Your task to perform on an android device: Set the phone to "Do not disturb". Image 0: 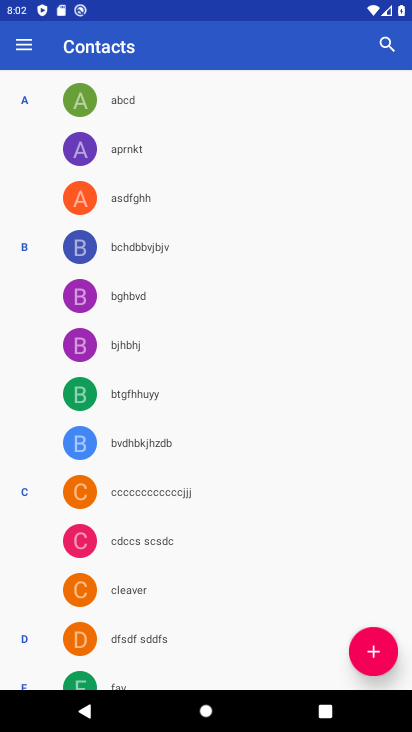
Step 0: press home button
Your task to perform on an android device: Set the phone to "Do not disturb". Image 1: 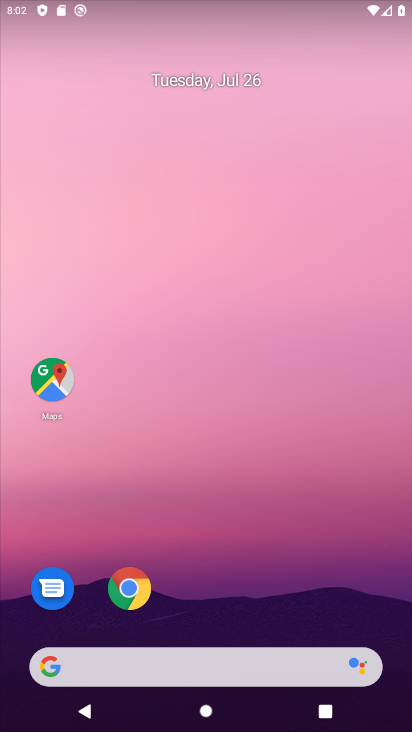
Step 1: drag from (186, 631) to (213, 132)
Your task to perform on an android device: Set the phone to "Do not disturb". Image 2: 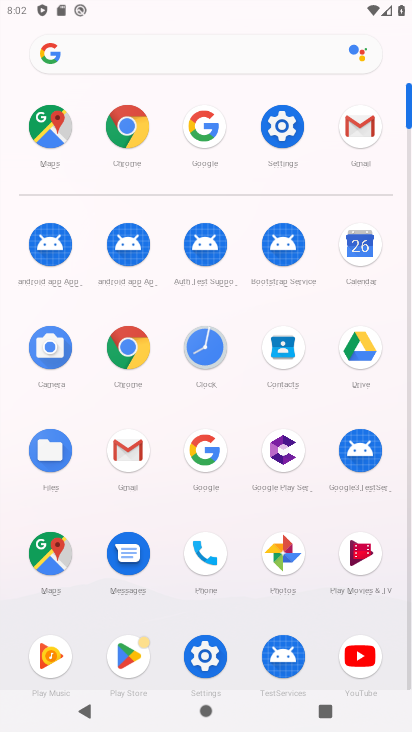
Step 2: click (271, 124)
Your task to perform on an android device: Set the phone to "Do not disturb". Image 3: 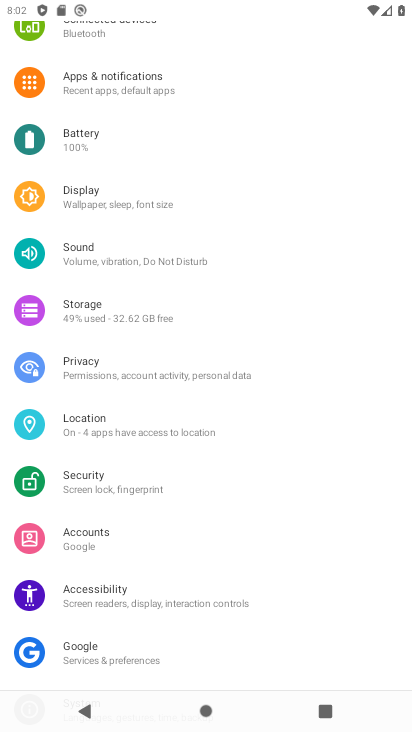
Step 3: click (134, 264)
Your task to perform on an android device: Set the phone to "Do not disturb". Image 4: 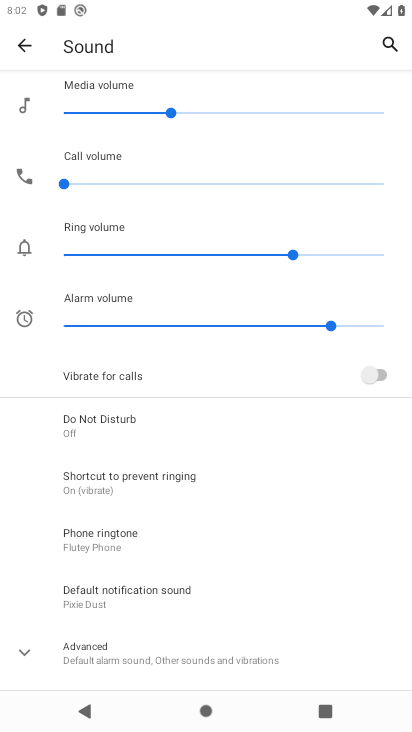
Step 4: click (96, 430)
Your task to perform on an android device: Set the phone to "Do not disturb". Image 5: 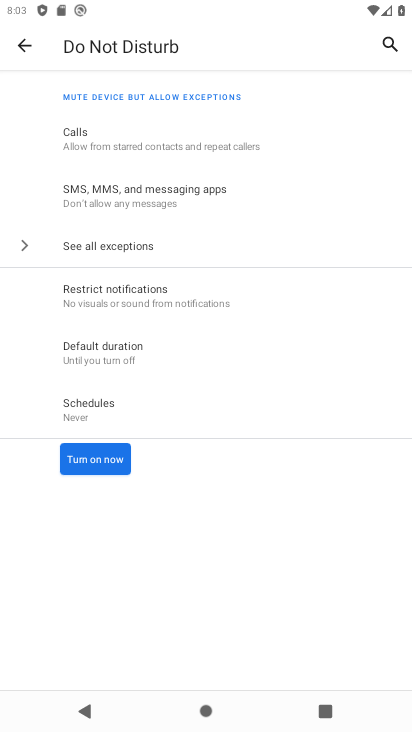
Step 5: click (88, 466)
Your task to perform on an android device: Set the phone to "Do not disturb". Image 6: 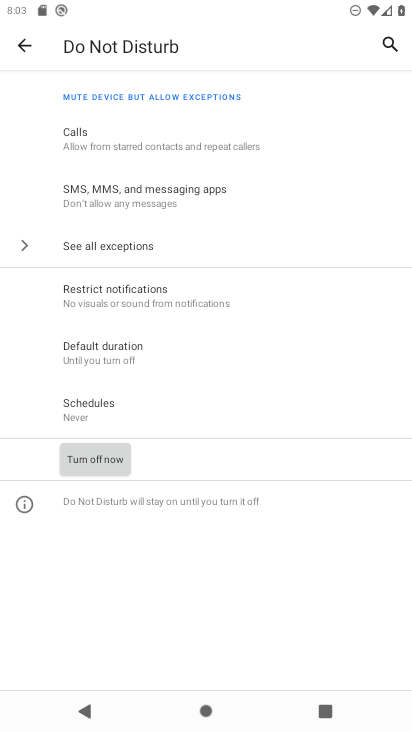
Step 6: task complete